Your task to perform on an android device: What's on my calendar tomorrow? Image 0: 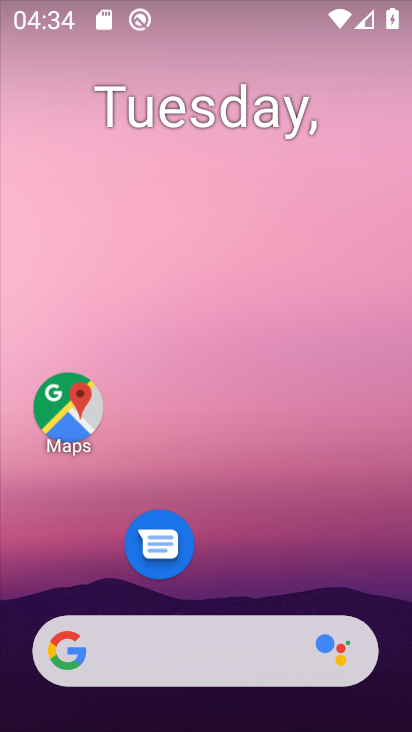
Step 0: drag from (222, 523) to (245, 284)
Your task to perform on an android device: What's on my calendar tomorrow? Image 1: 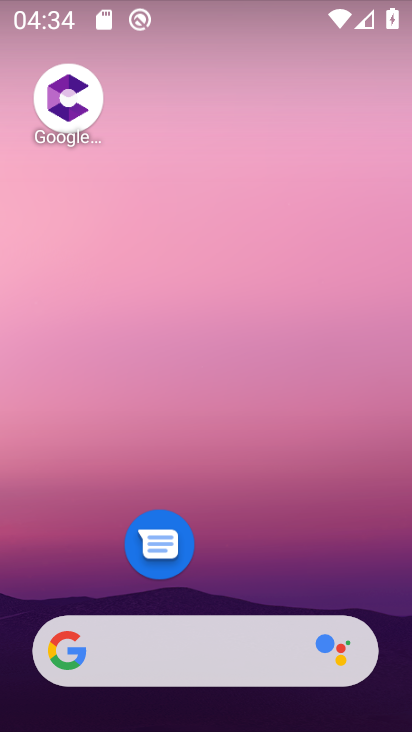
Step 1: drag from (222, 583) to (249, 93)
Your task to perform on an android device: What's on my calendar tomorrow? Image 2: 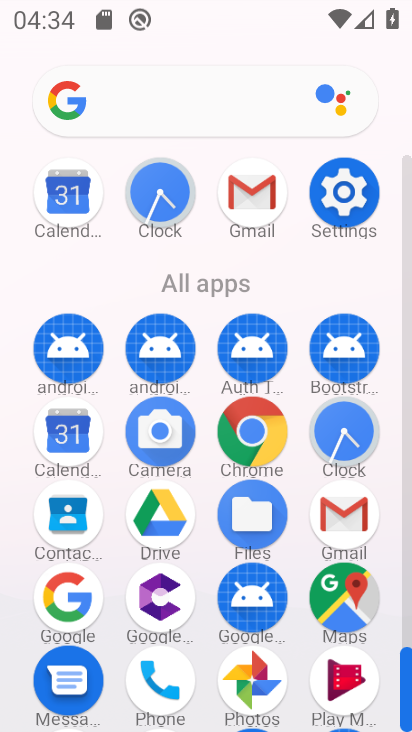
Step 2: click (340, 444)
Your task to perform on an android device: What's on my calendar tomorrow? Image 3: 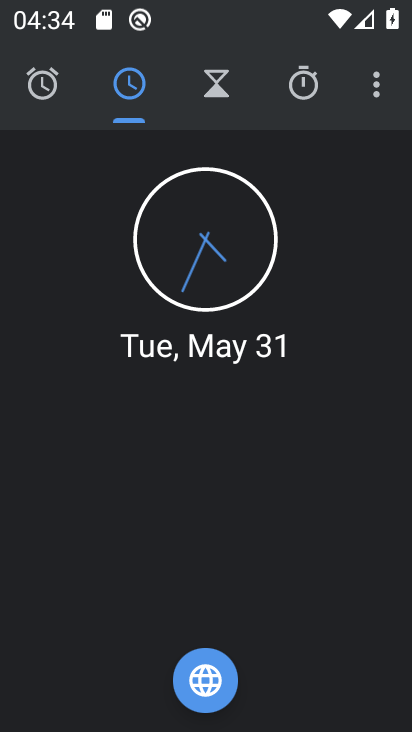
Step 3: press home button
Your task to perform on an android device: What's on my calendar tomorrow? Image 4: 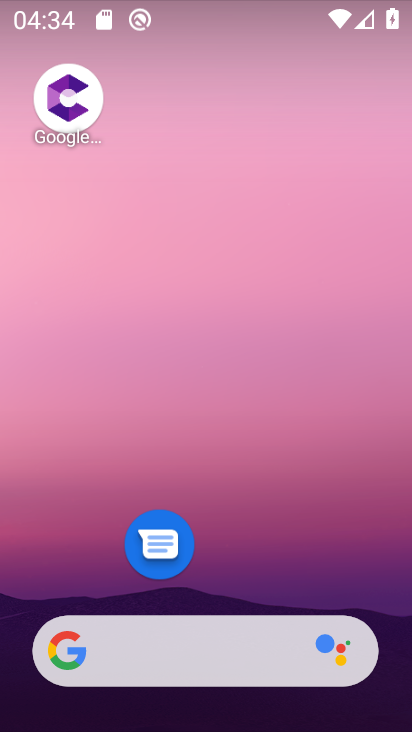
Step 4: drag from (240, 588) to (251, 263)
Your task to perform on an android device: What's on my calendar tomorrow? Image 5: 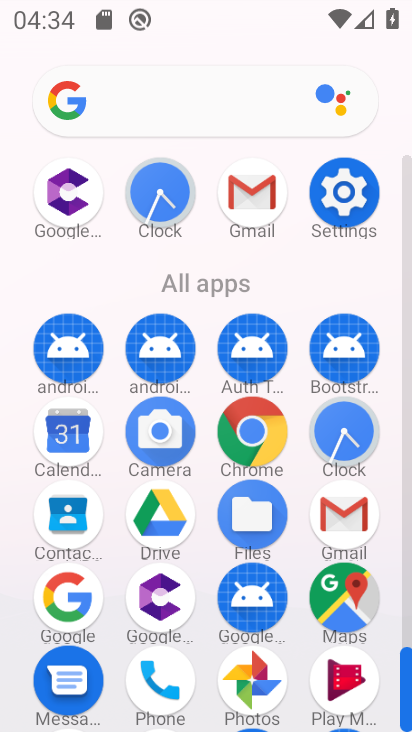
Step 5: click (74, 441)
Your task to perform on an android device: What's on my calendar tomorrow? Image 6: 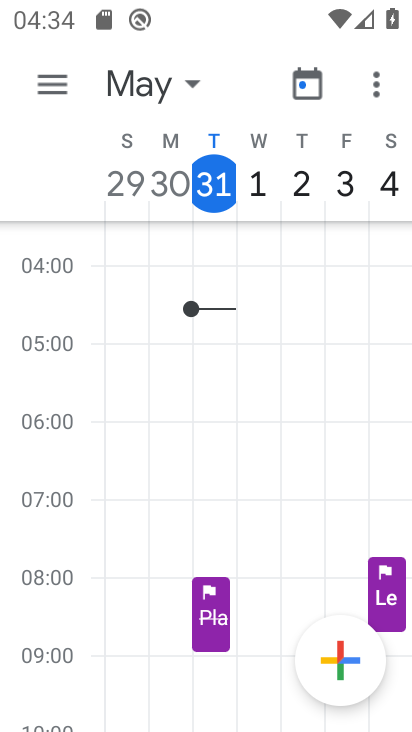
Step 6: click (38, 84)
Your task to perform on an android device: What's on my calendar tomorrow? Image 7: 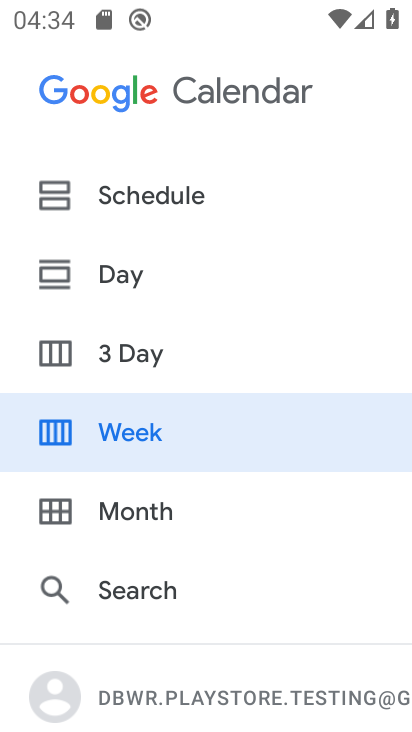
Step 7: click (138, 352)
Your task to perform on an android device: What's on my calendar tomorrow? Image 8: 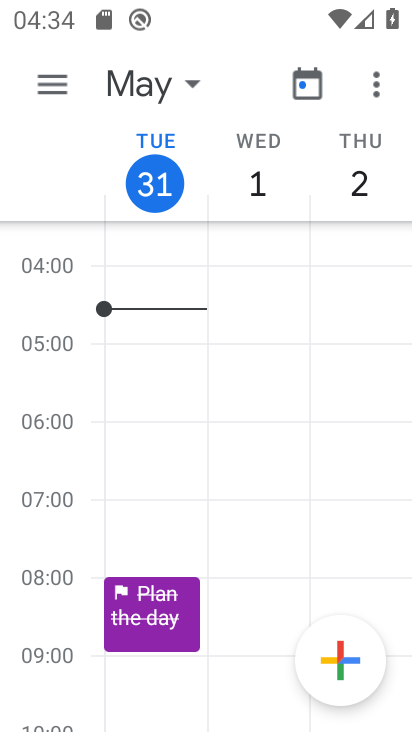
Step 8: task complete